Your task to perform on an android device: Go to Google maps Image 0: 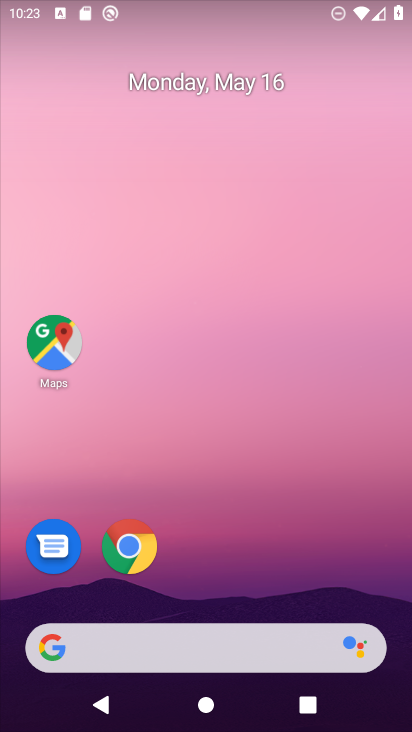
Step 0: task complete